Your task to perform on an android device: change the clock display to digital Image 0: 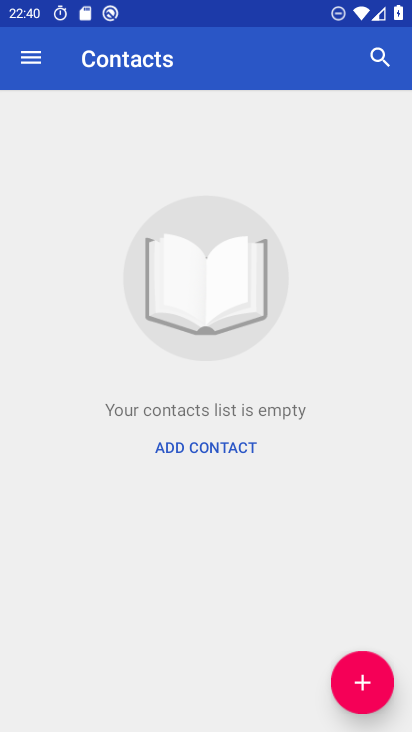
Step 0: press home button
Your task to perform on an android device: change the clock display to digital Image 1: 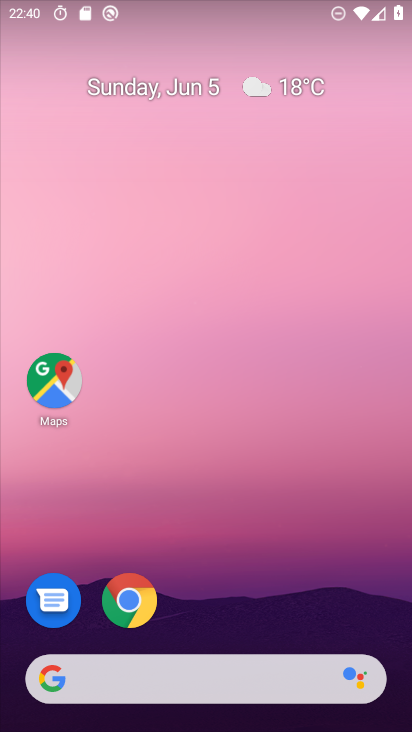
Step 1: drag from (219, 602) to (269, 188)
Your task to perform on an android device: change the clock display to digital Image 2: 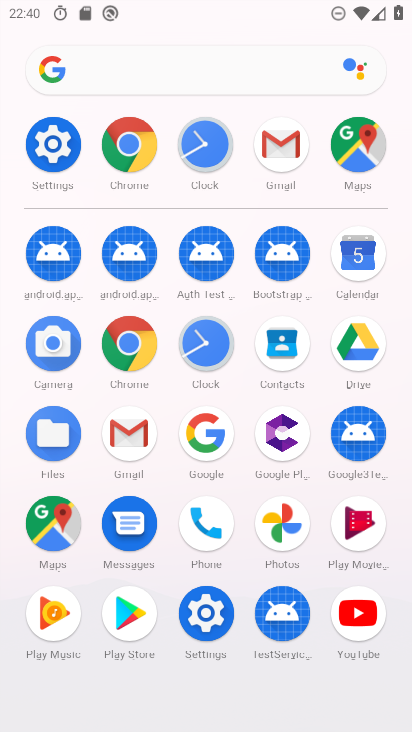
Step 2: click (216, 347)
Your task to perform on an android device: change the clock display to digital Image 3: 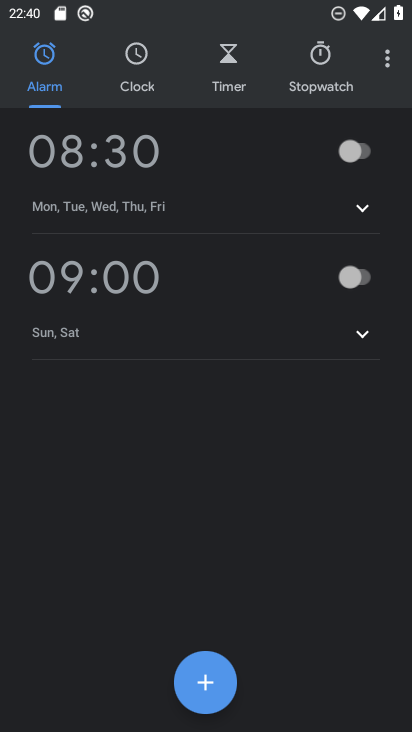
Step 3: click (389, 51)
Your task to perform on an android device: change the clock display to digital Image 4: 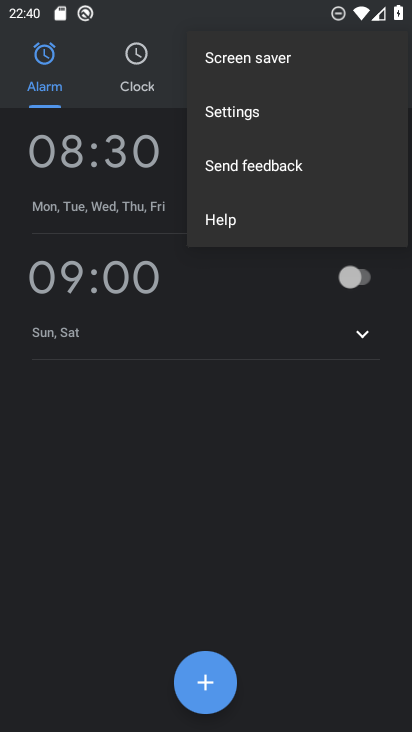
Step 4: click (255, 119)
Your task to perform on an android device: change the clock display to digital Image 5: 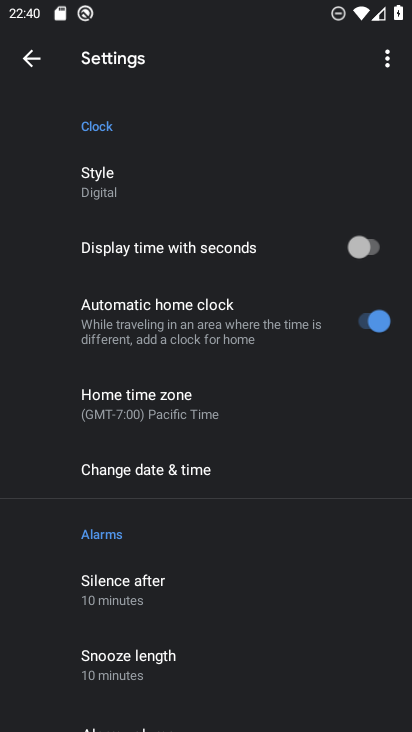
Step 5: task complete